Your task to perform on an android device: Do I have any events today? Image 0: 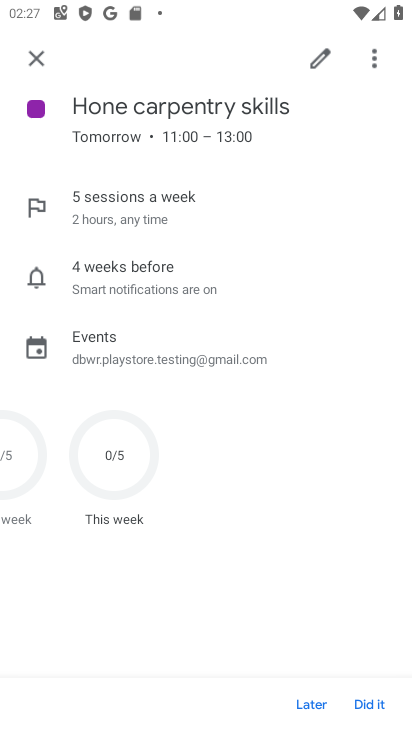
Step 0: press home button
Your task to perform on an android device: Do I have any events today? Image 1: 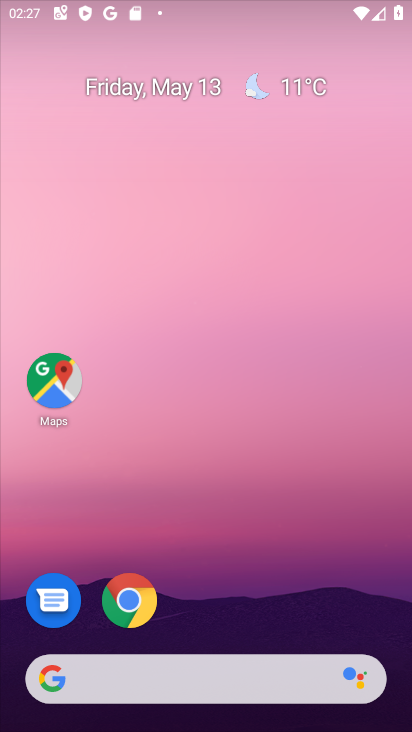
Step 1: drag from (205, 585) to (275, 180)
Your task to perform on an android device: Do I have any events today? Image 2: 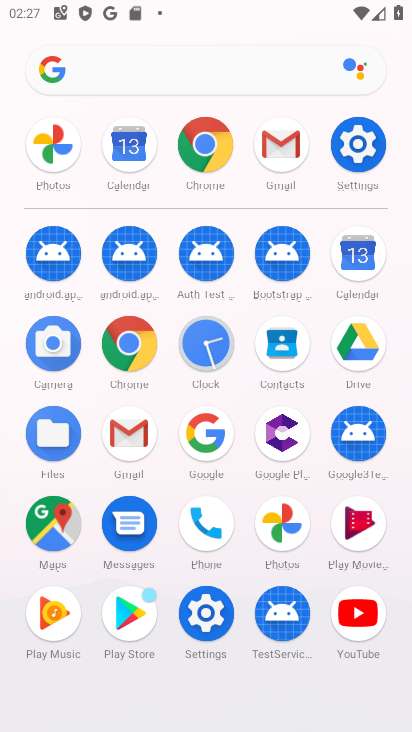
Step 2: click (359, 264)
Your task to perform on an android device: Do I have any events today? Image 3: 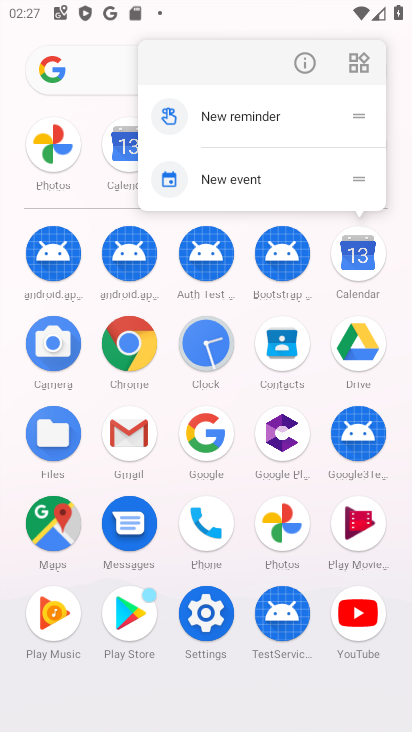
Step 3: click (307, 57)
Your task to perform on an android device: Do I have any events today? Image 4: 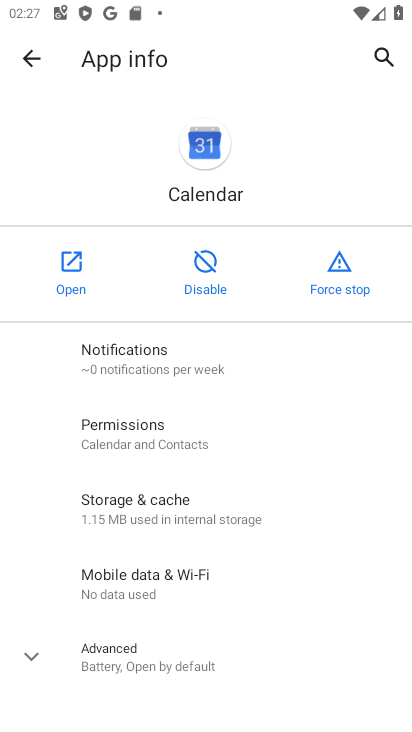
Step 4: click (78, 277)
Your task to perform on an android device: Do I have any events today? Image 5: 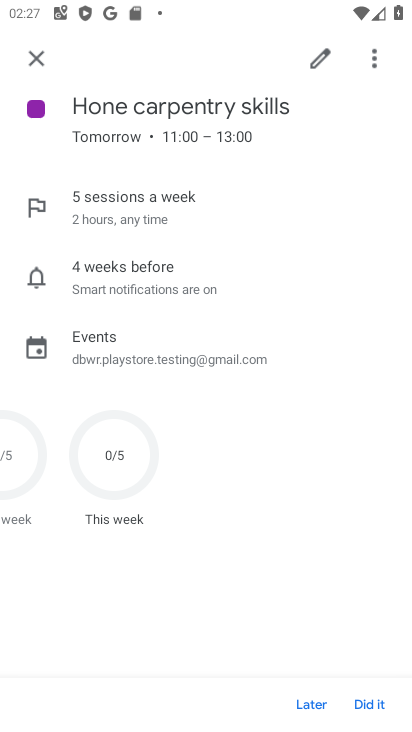
Step 5: click (30, 58)
Your task to perform on an android device: Do I have any events today? Image 6: 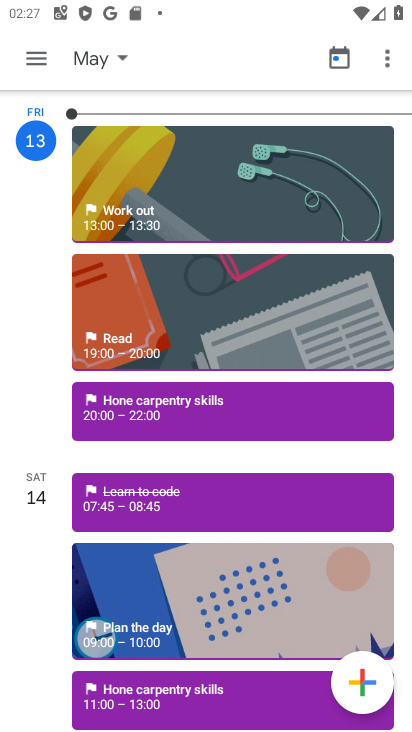
Step 6: task complete